Your task to perform on an android device: How much does a 2 bedroom apartment rent for in Los Angeles? Image 0: 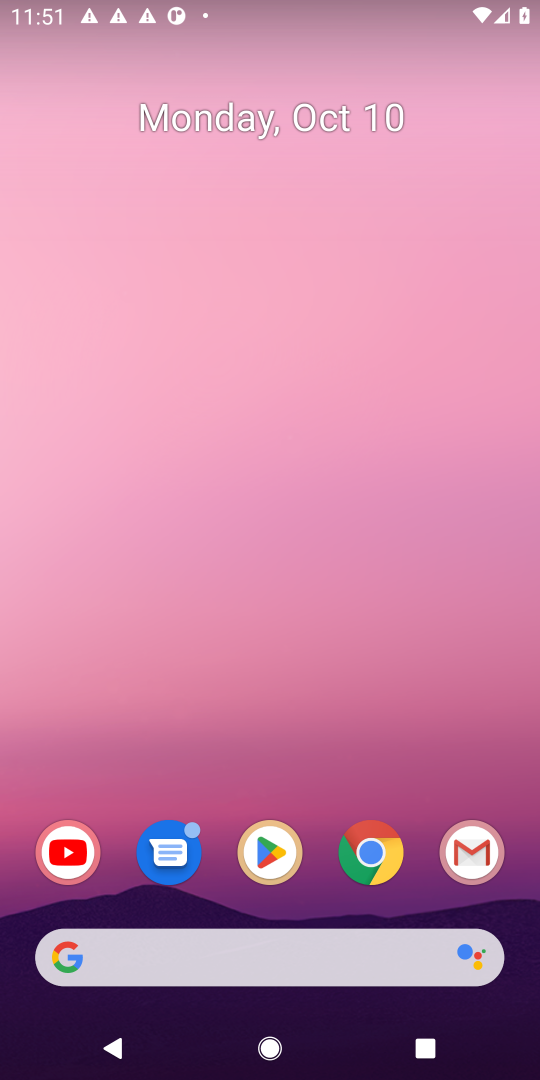
Step 0: click (390, 853)
Your task to perform on an android device: How much does a 2 bedroom apartment rent for in Los Angeles? Image 1: 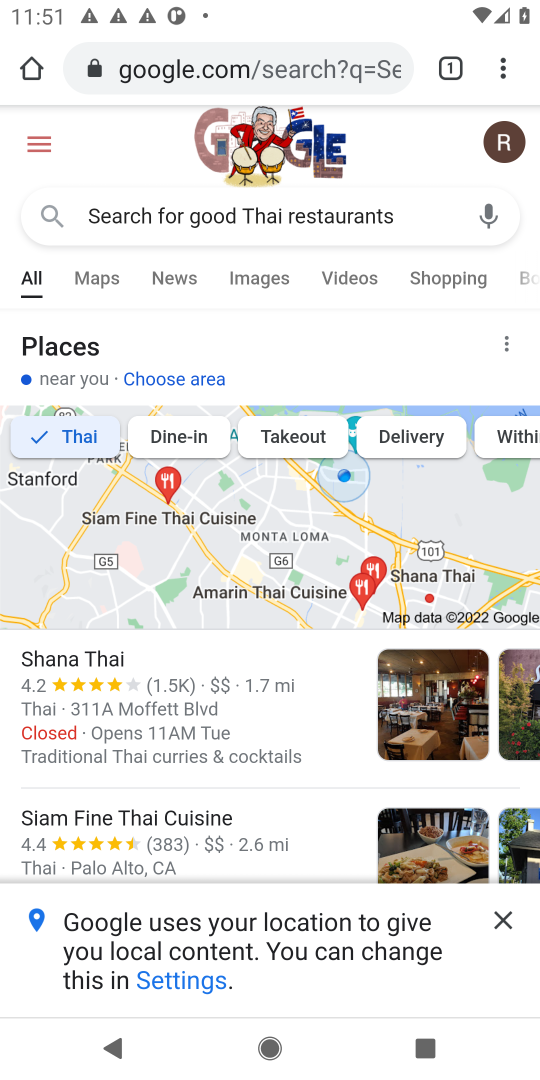
Step 1: click (299, 78)
Your task to perform on an android device: How much does a 2 bedroom apartment rent for in Los Angeles? Image 2: 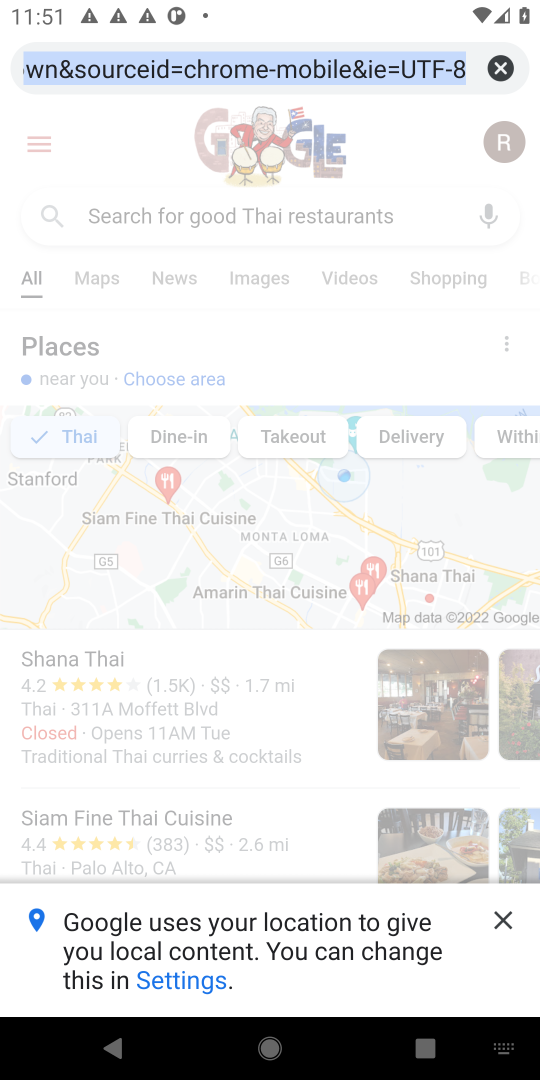
Step 2: click (504, 65)
Your task to perform on an android device: How much does a 2 bedroom apartment rent for in Los Angeles? Image 3: 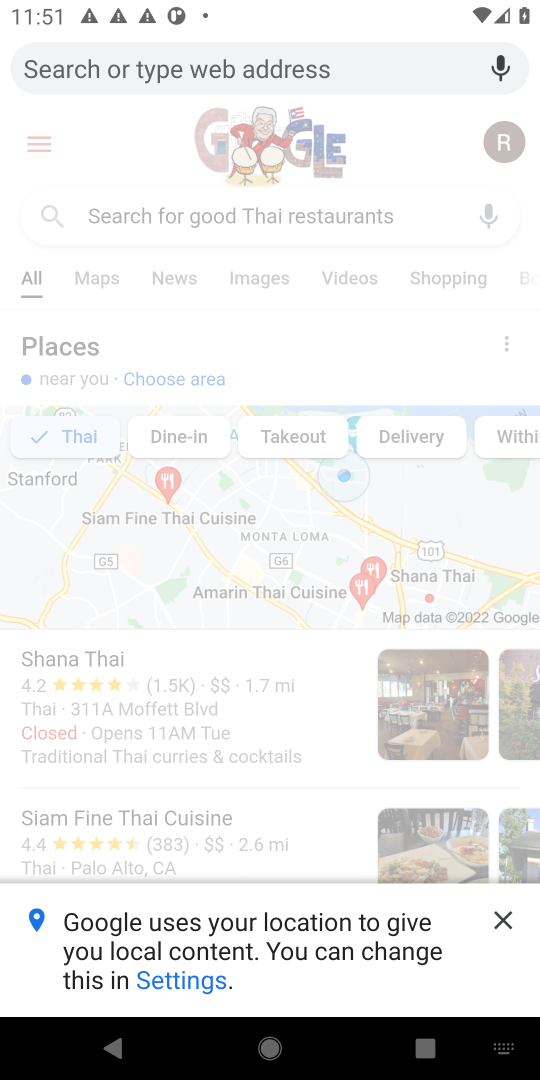
Step 3: type "How much does a 2 bedroom apartment rent for in Los Angeles?"
Your task to perform on an android device: How much does a 2 bedroom apartment rent for in Los Angeles? Image 4: 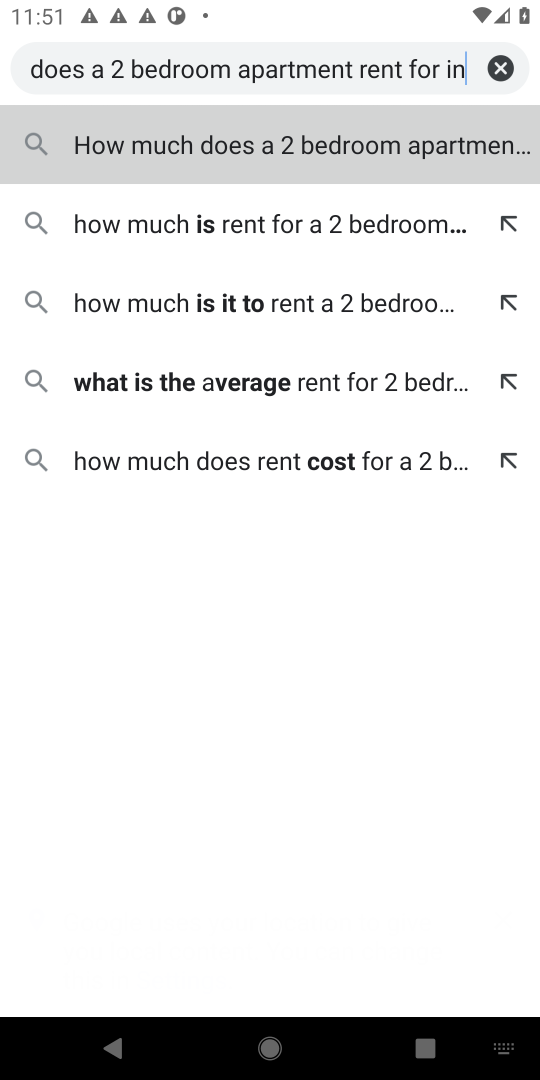
Step 4: click (61, 141)
Your task to perform on an android device: How much does a 2 bedroom apartment rent for in Los Angeles? Image 5: 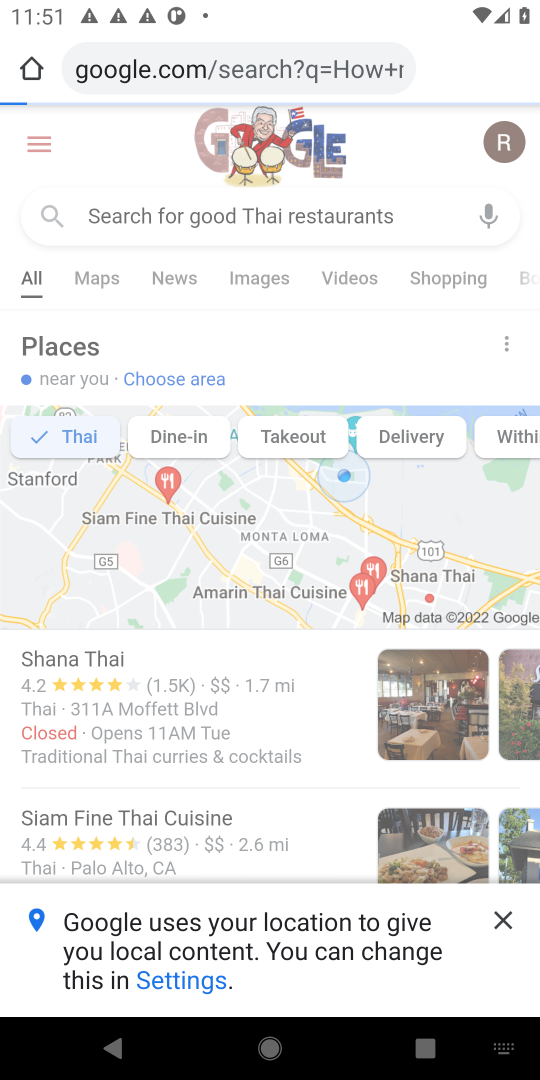
Step 5: click (61, 141)
Your task to perform on an android device: How much does a 2 bedroom apartment rent for in Los Angeles? Image 6: 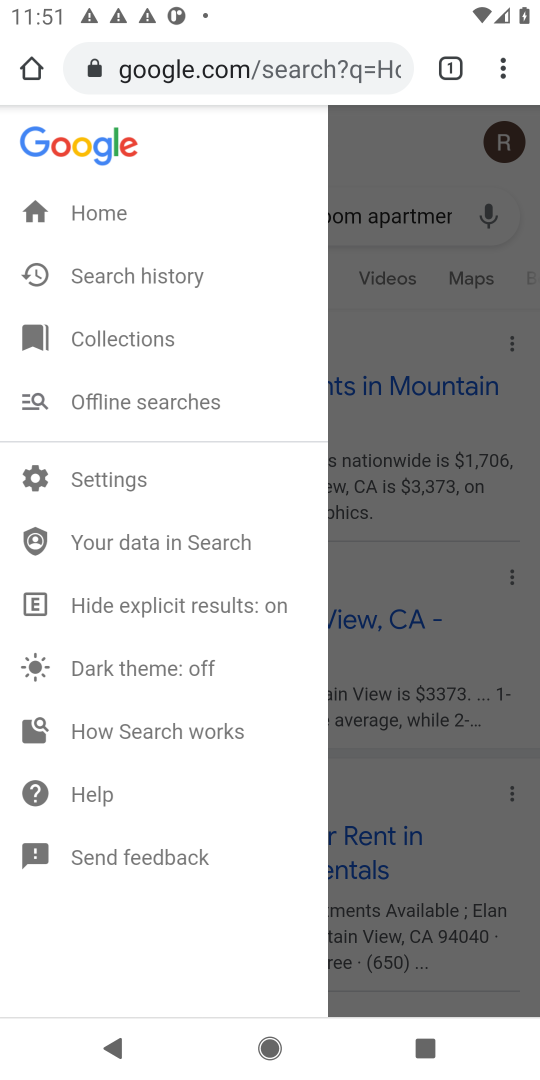
Step 6: click (439, 256)
Your task to perform on an android device: How much does a 2 bedroom apartment rent for in Los Angeles? Image 7: 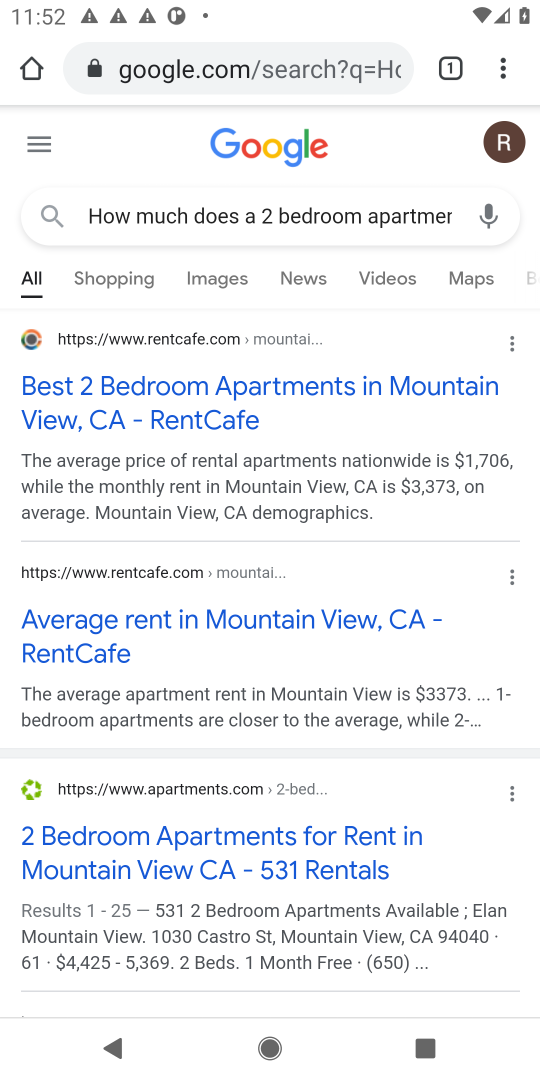
Step 7: click (167, 391)
Your task to perform on an android device: How much does a 2 bedroom apartment rent for in Los Angeles? Image 8: 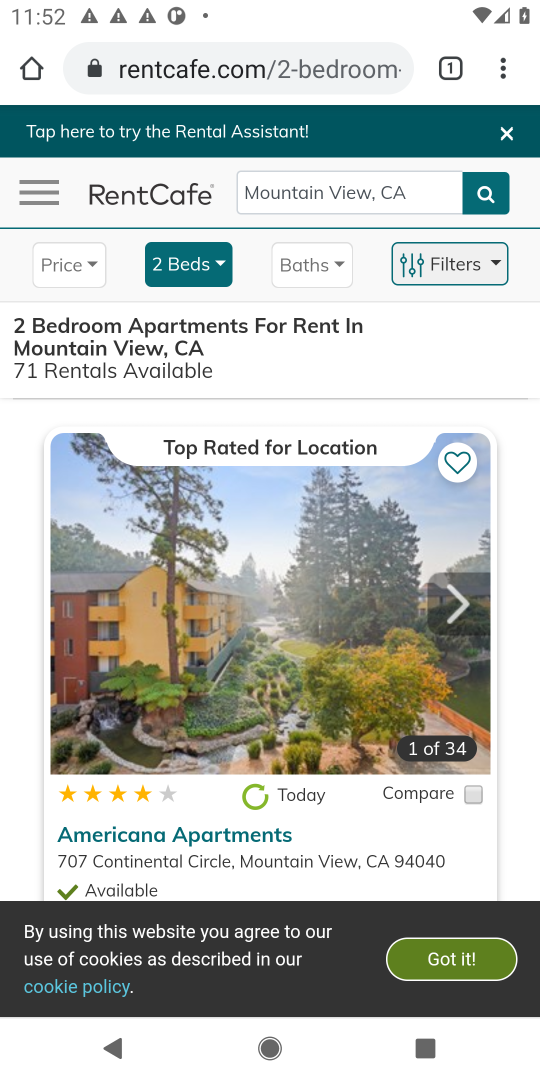
Step 8: task complete